Your task to perform on an android device: open a bookmark in the chrome app Image 0: 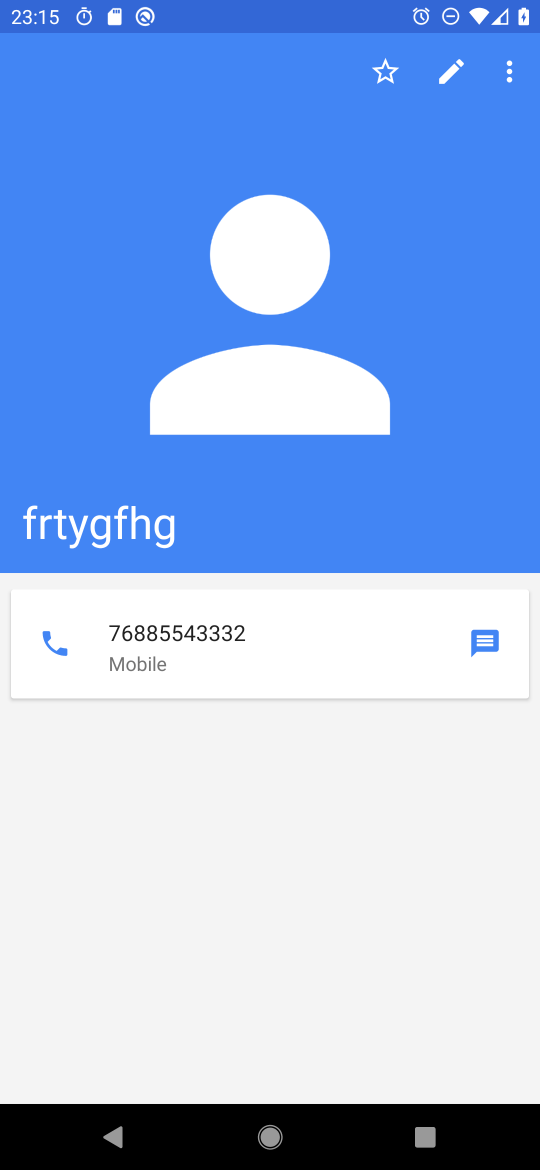
Step 0: click (313, 409)
Your task to perform on an android device: open a bookmark in the chrome app Image 1: 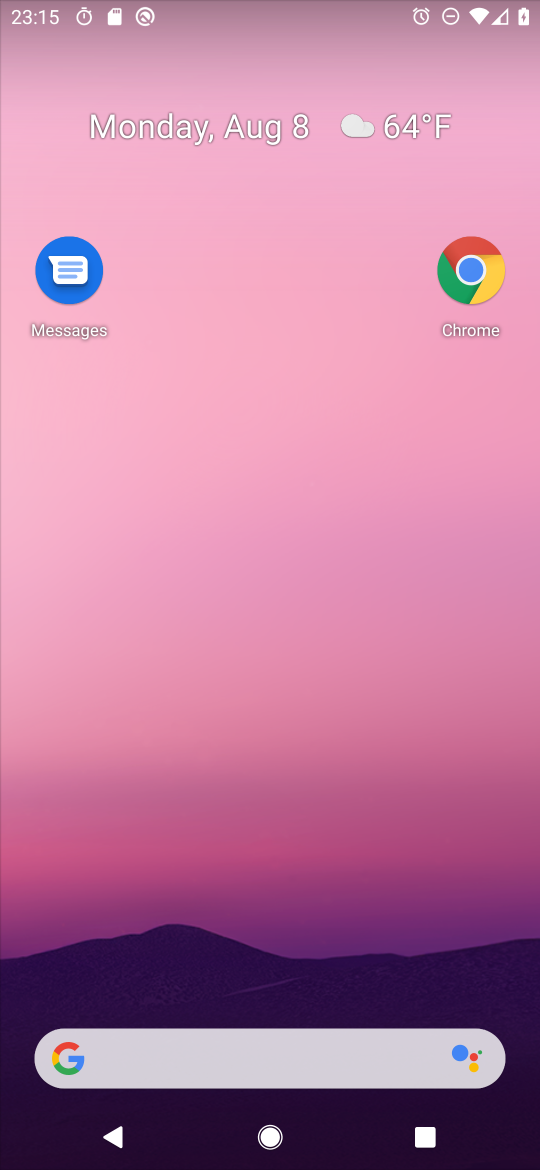
Step 1: press home button
Your task to perform on an android device: open a bookmark in the chrome app Image 2: 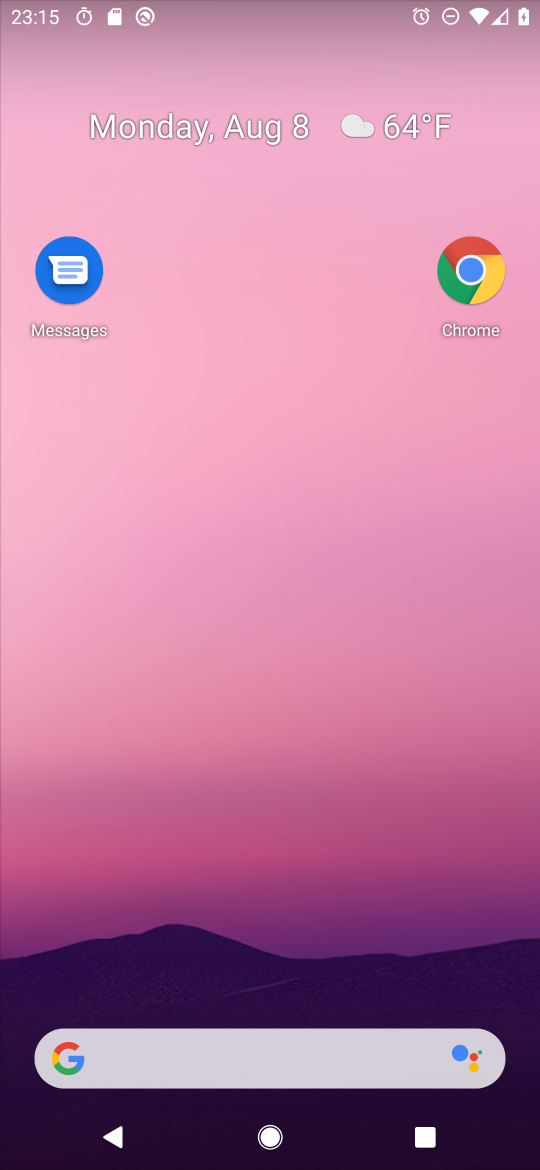
Step 2: drag from (340, 653) to (526, 274)
Your task to perform on an android device: open a bookmark in the chrome app Image 3: 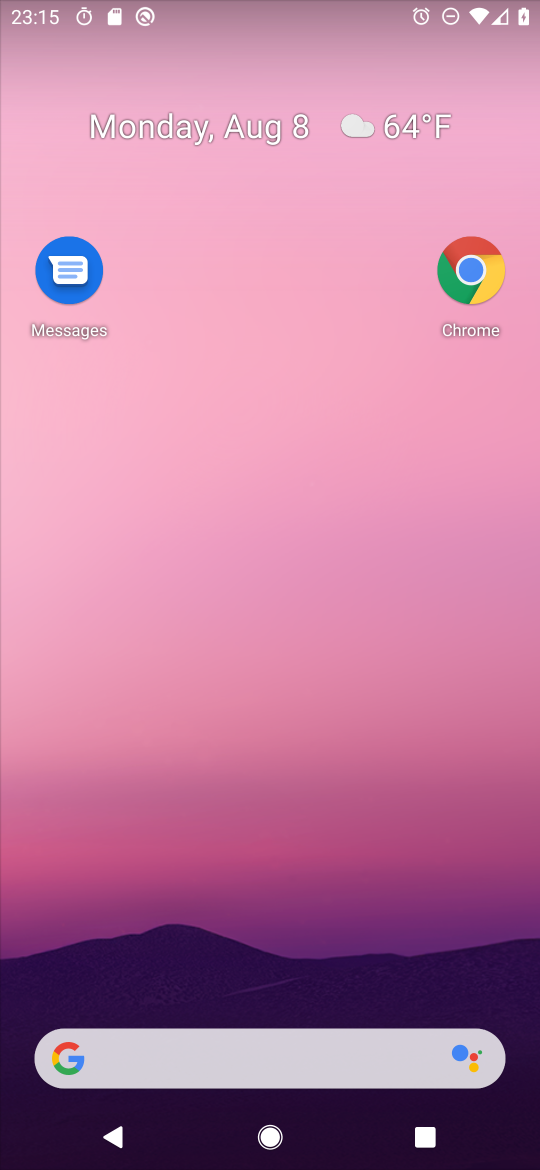
Step 3: click (317, 554)
Your task to perform on an android device: open a bookmark in the chrome app Image 4: 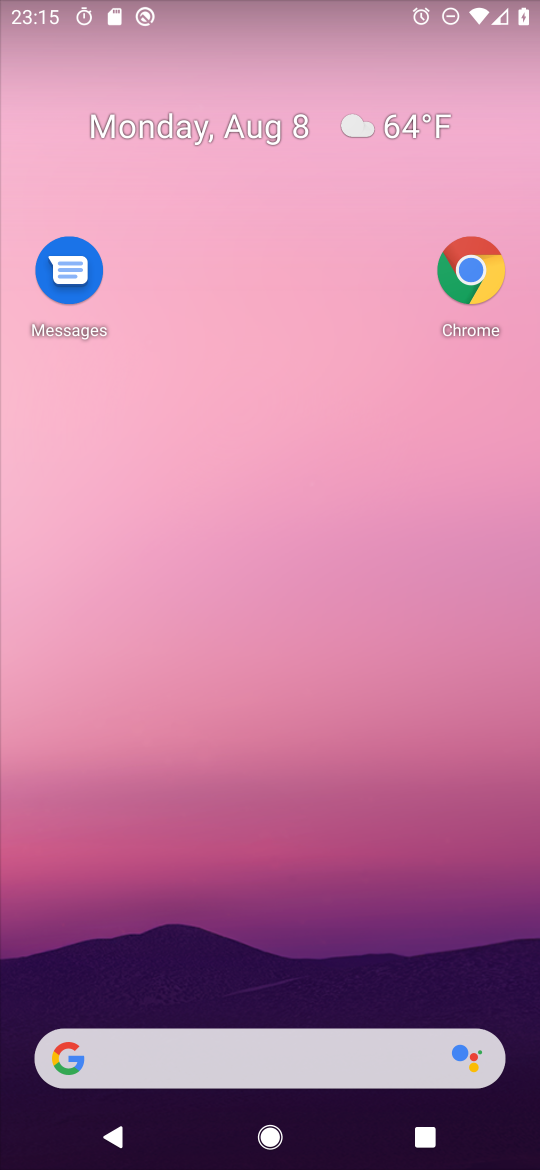
Step 4: drag from (260, 944) to (530, 436)
Your task to perform on an android device: open a bookmark in the chrome app Image 5: 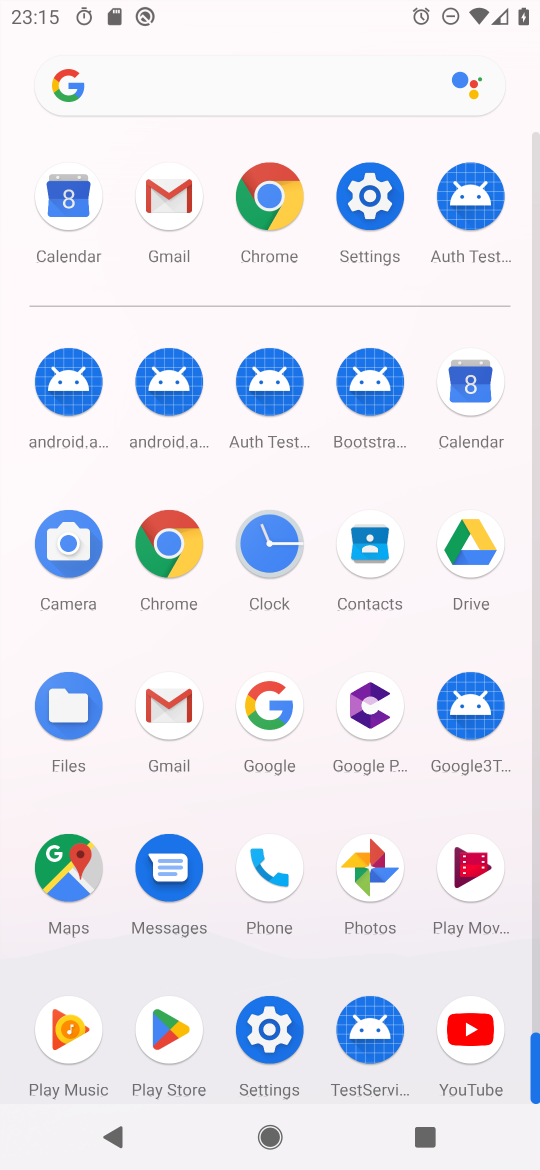
Step 5: click (165, 543)
Your task to perform on an android device: open a bookmark in the chrome app Image 6: 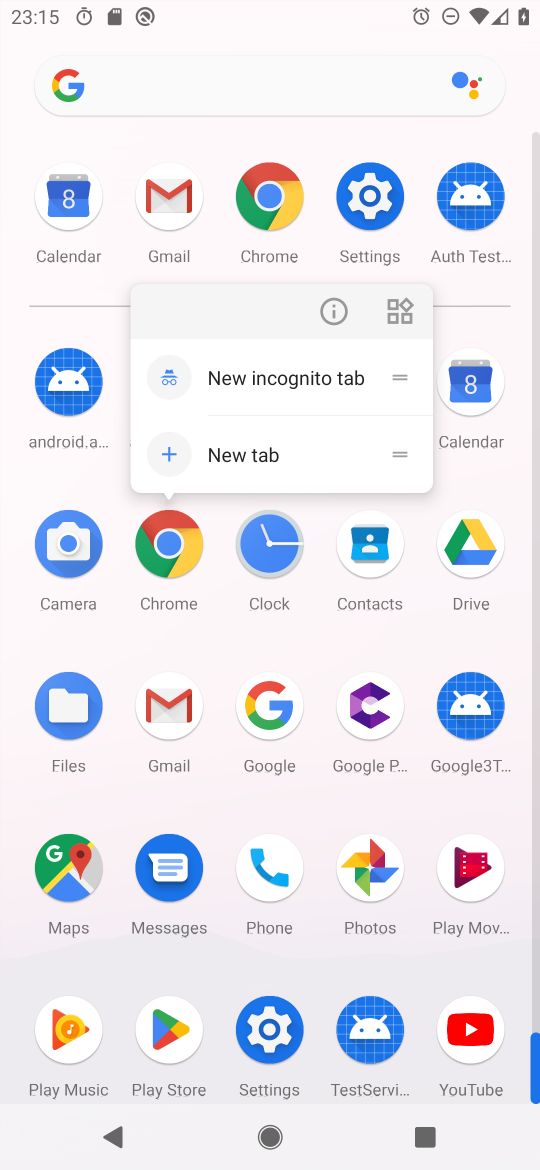
Step 6: click (327, 312)
Your task to perform on an android device: open a bookmark in the chrome app Image 7: 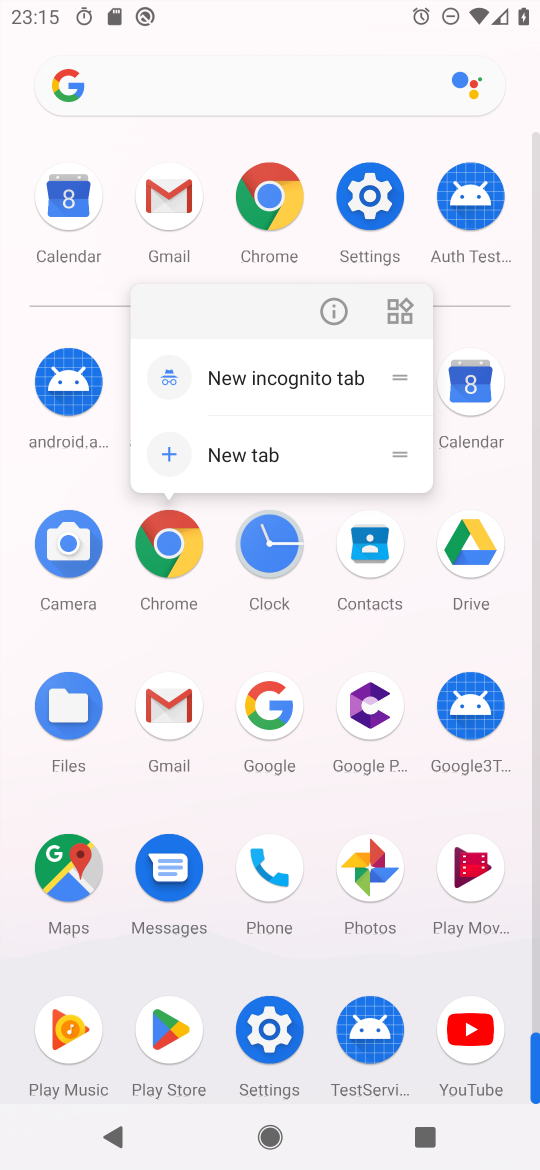
Step 7: click (327, 312)
Your task to perform on an android device: open a bookmark in the chrome app Image 8: 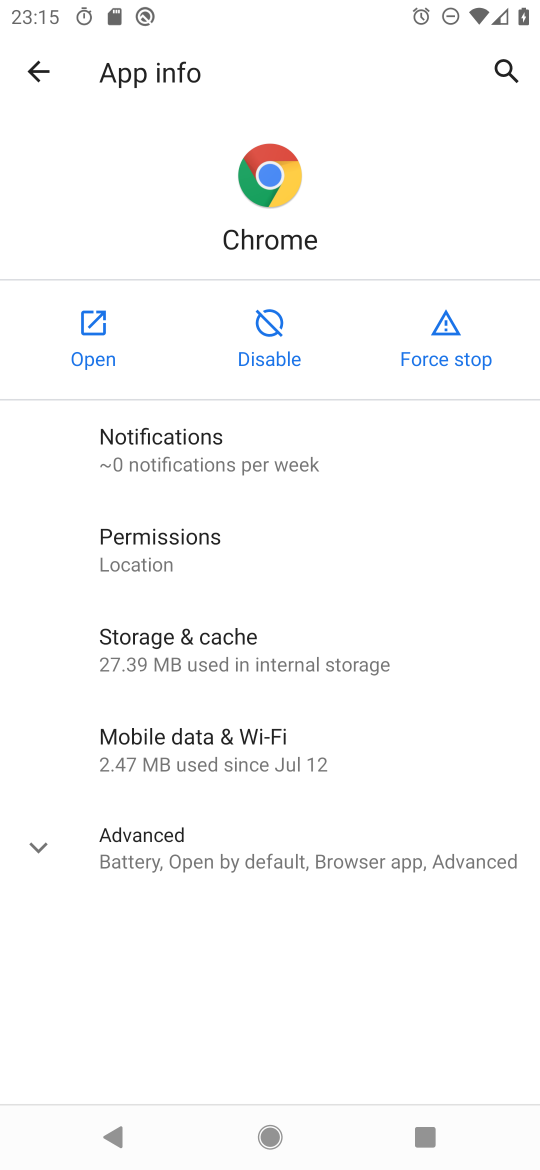
Step 8: click (87, 309)
Your task to perform on an android device: open a bookmark in the chrome app Image 9: 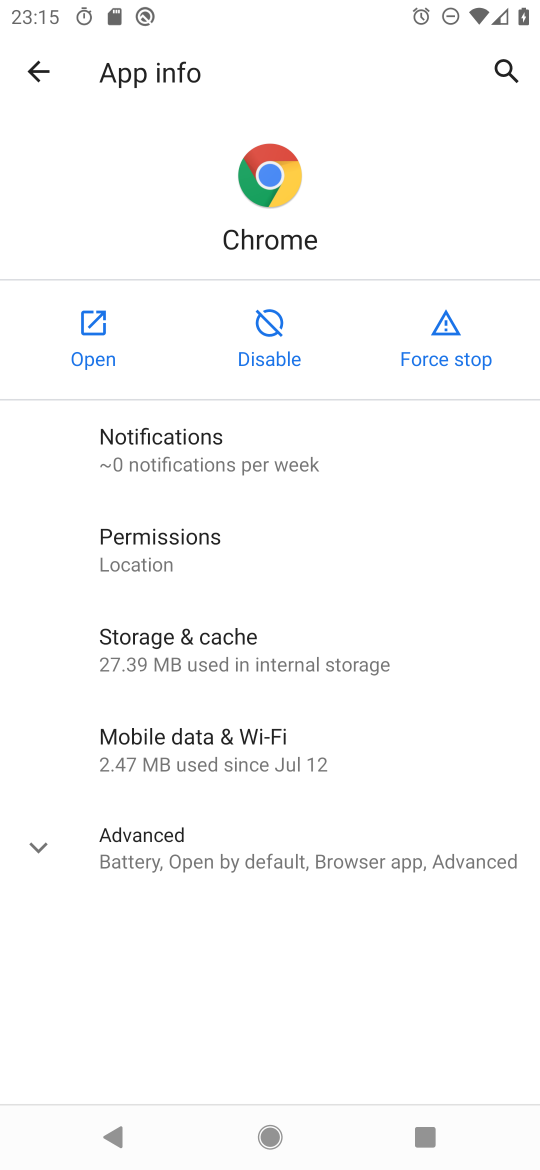
Step 9: click (87, 309)
Your task to perform on an android device: open a bookmark in the chrome app Image 10: 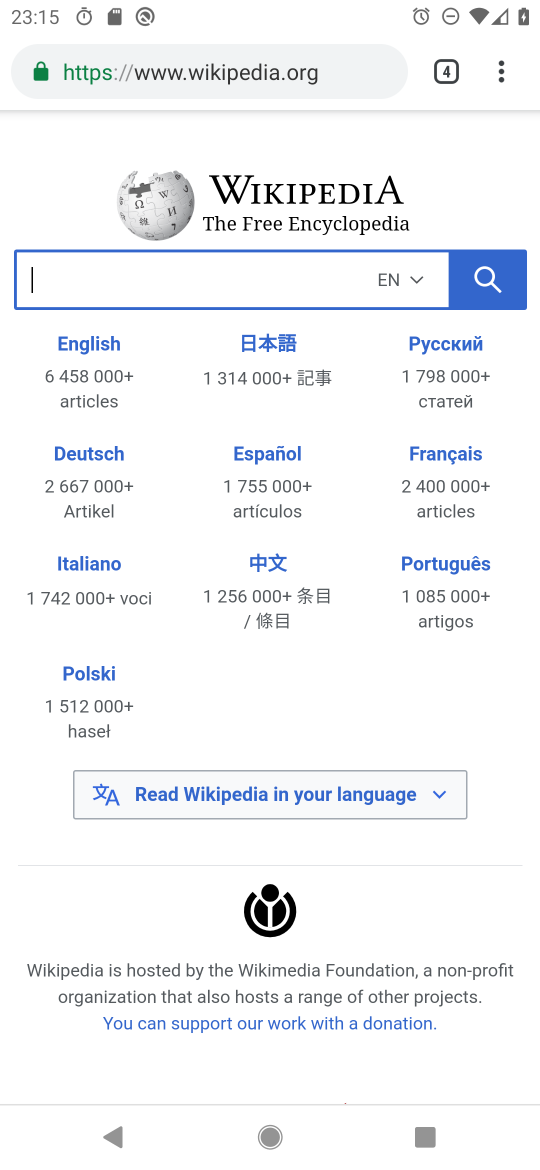
Step 10: task complete